Your task to perform on an android device: Go to Amazon Image 0: 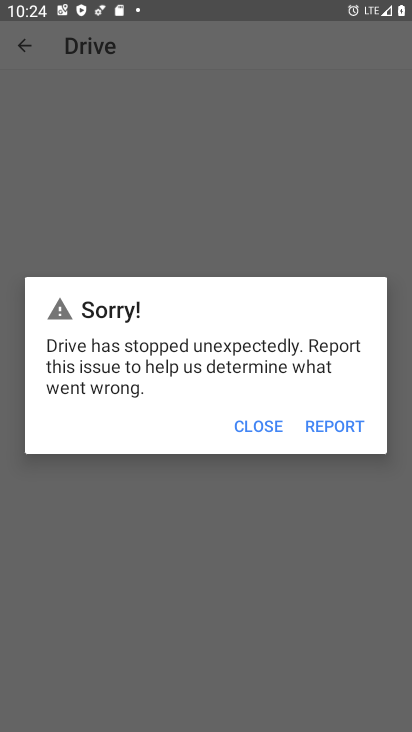
Step 0: press home button
Your task to perform on an android device: Go to Amazon Image 1: 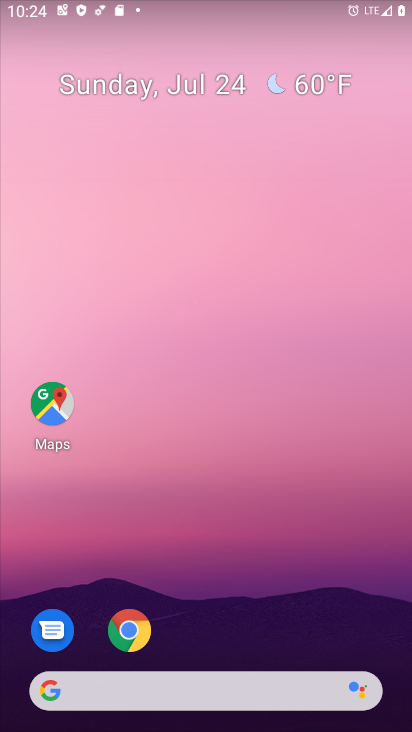
Step 1: click (134, 638)
Your task to perform on an android device: Go to Amazon Image 2: 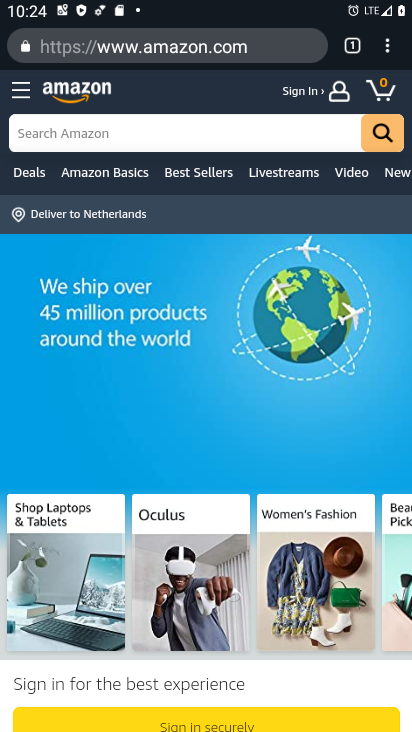
Step 2: task complete